Your task to perform on an android device: toggle data saver in the chrome app Image 0: 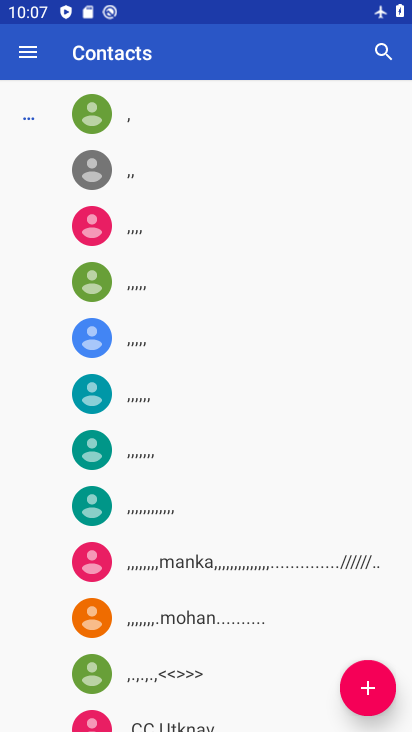
Step 0: press home button
Your task to perform on an android device: toggle data saver in the chrome app Image 1: 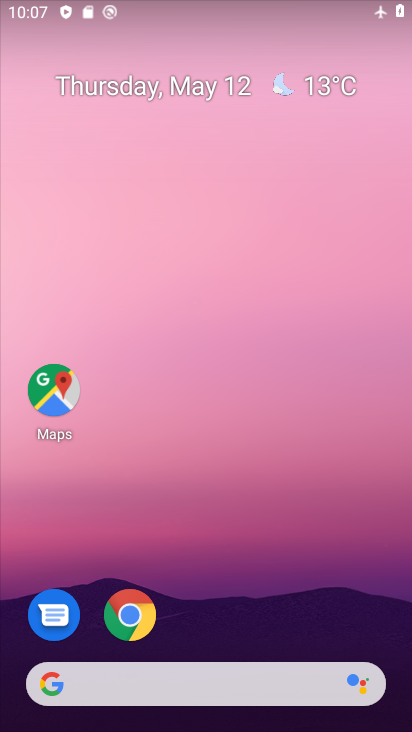
Step 1: drag from (302, 625) to (292, 123)
Your task to perform on an android device: toggle data saver in the chrome app Image 2: 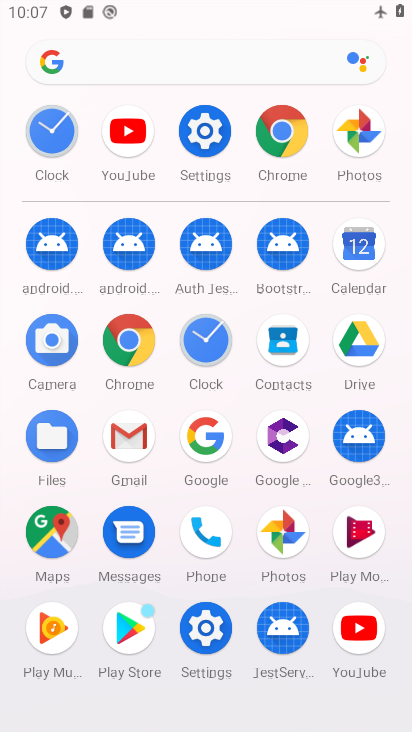
Step 2: click (288, 131)
Your task to perform on an android device: toggle data saver in the chrome app Image 3: 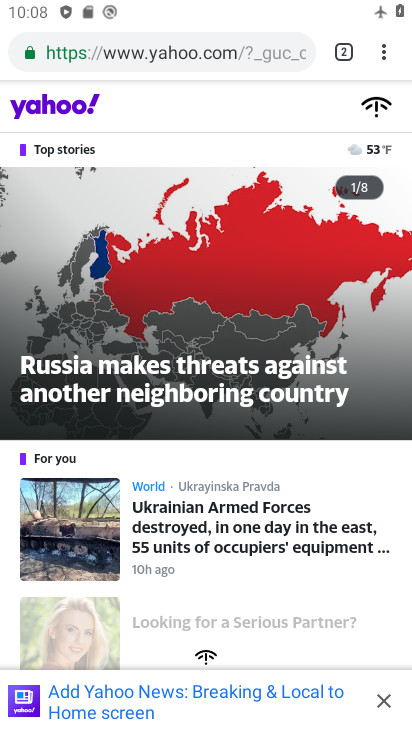
Step 3: drag from (384, 55) to (255, 595)
Your task to perform on an android device: toggle data saver in the chrome app Image 4: 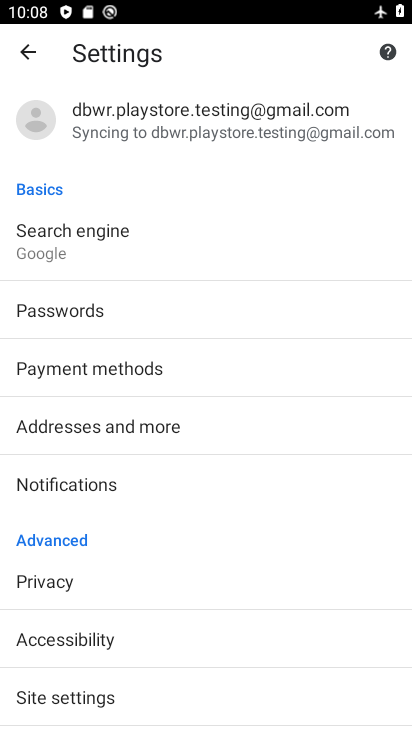
Step 4: drag from (155, 672) to (174, 234)
Your task to perform on an android device: toggle data saver in the chrome app Image 5: 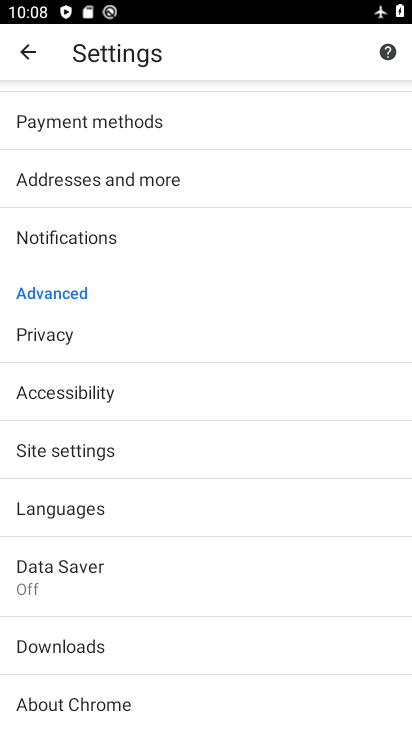
Step 5: click (94, 566)
Your task to perform on an android device: toggle data saver in the chrome app Image 6: 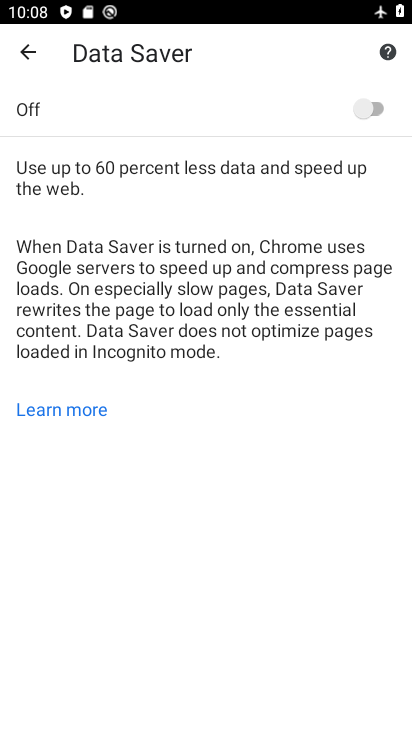
Step 6: click (373, 115)
Your task to perform on an android device: toggle data saver in the chrome app Image 7: 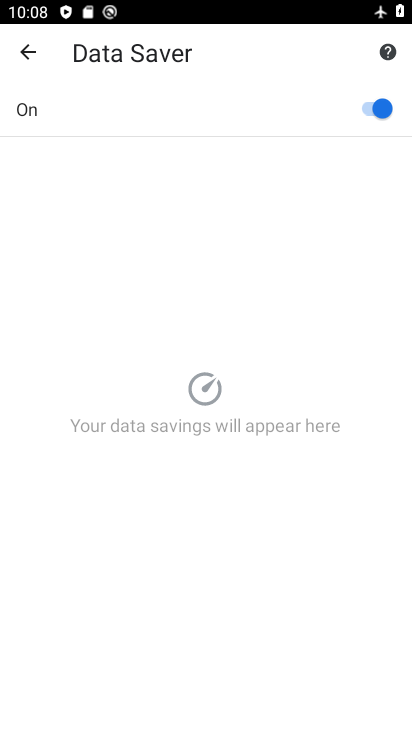
Step 7: task complete